Your task to perform on an android device: Go to notification settings Image 0: 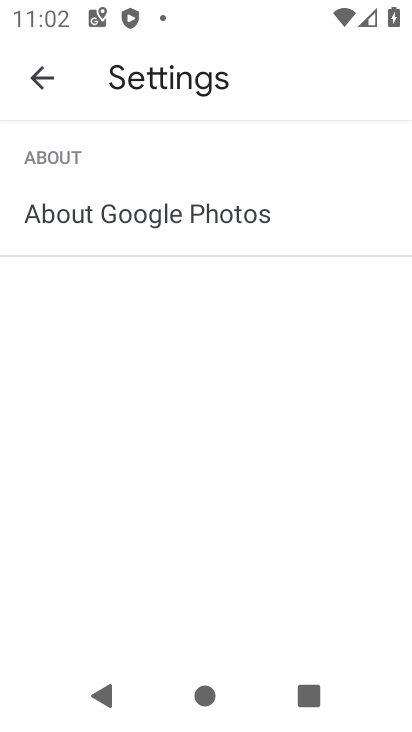
Step 0: press home button
Your task to perform on an android device: Go to notification settings Image 1: 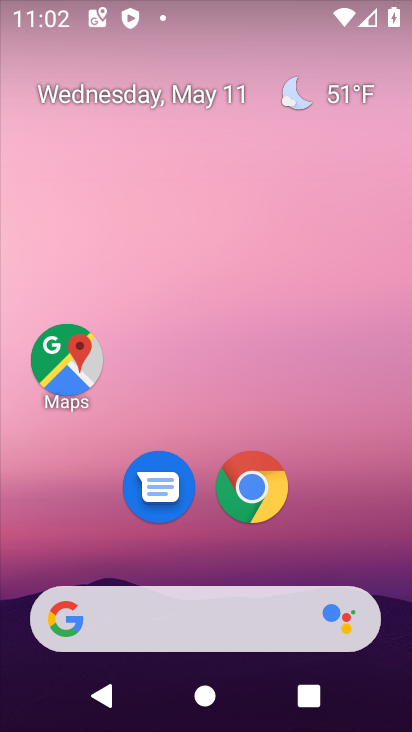
Step 1: drag from (371, 495) to (327, 142)
Your task to perform on an android device: Go to notification settings Image 2: 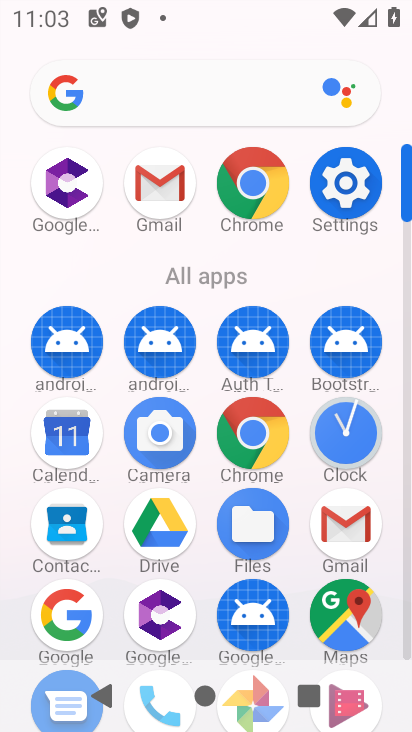
Step 2: drag from (122, 284) to (119, 90)
Your task to perform on an android device: Go to notification settings Image 3: 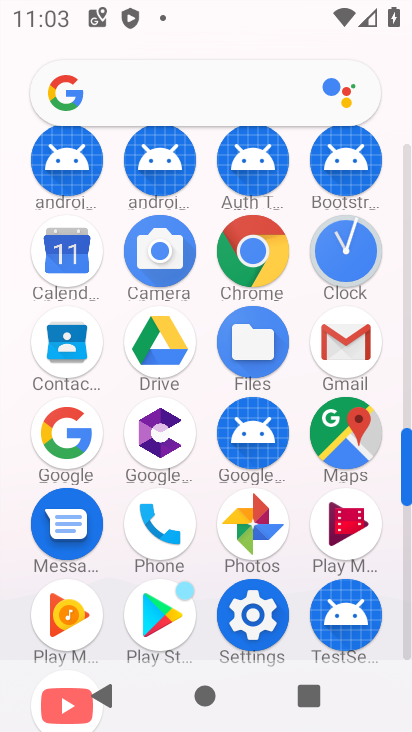
Step 3: click (237, 604)
Your task to perform on an android device: Go to notification settings Image 4: 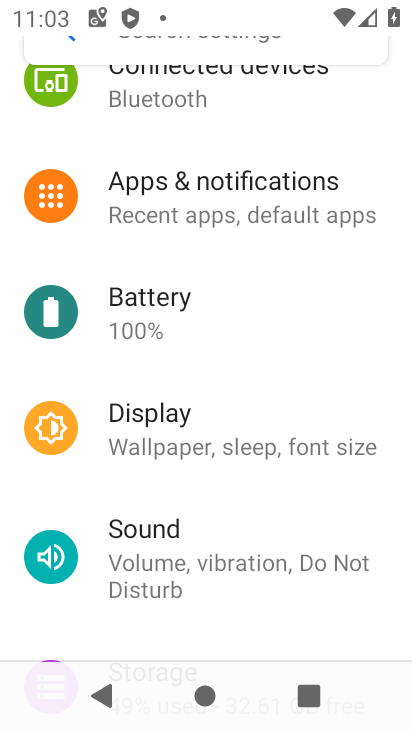
Step 4: click (204, 221)
Your task to perform on an android device: Go to notification settings Image 5: 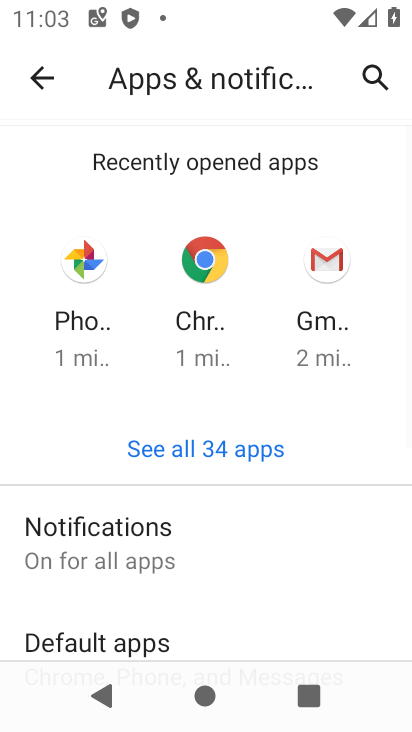
Step 5: click (123, 576)
Your task to perform on an android device: Go to notification settings Image 6: 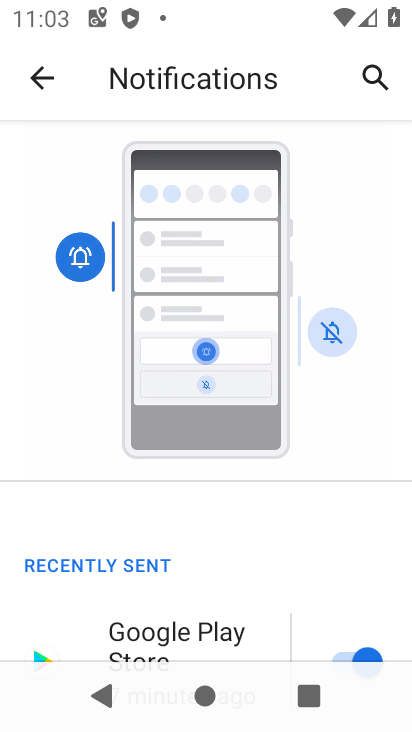
Step 6: task complete